Your task to perform on an android device: Show the shopping cart on newegg. Search for logitech g502 on newegg, select the first entry, add it to the cart, then select checkout. Image 0: 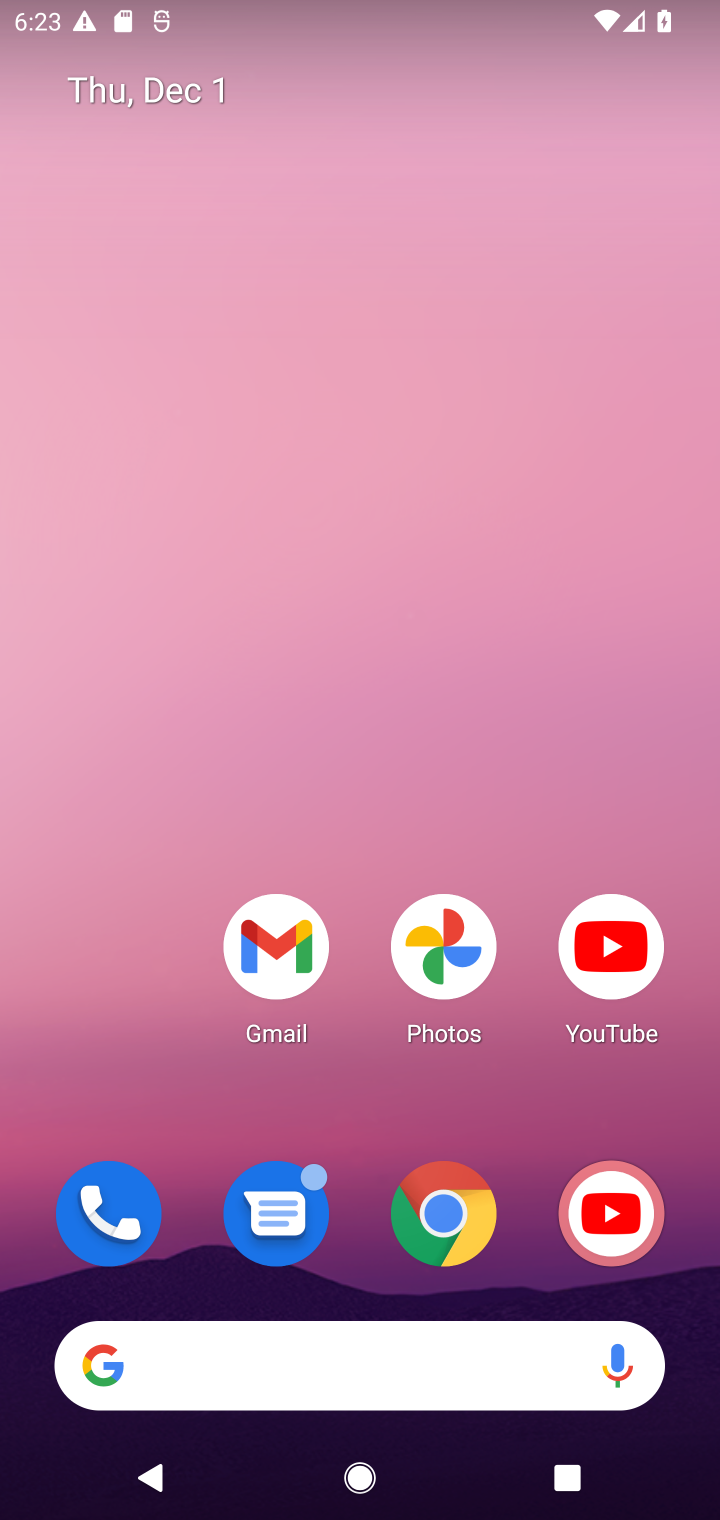
Step 0: click (471, 1346)
Your task to perform on an android device: Show the shopping cart on newegg. Search for logitech g502 on newegg, select the first entry, add it to the cart, then select checkout. Image 1: 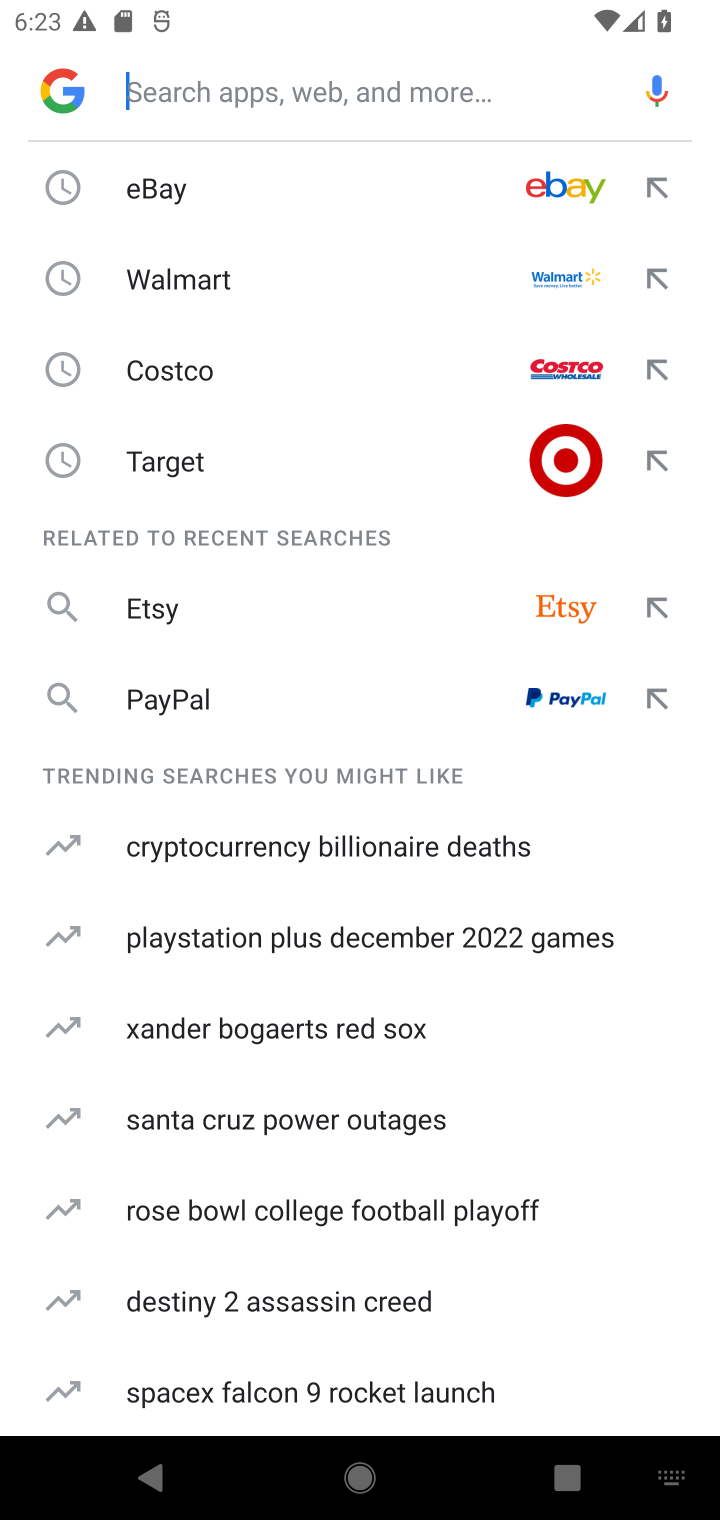
Step 1: type "newegg.com"
Your task to perform on an android device: Show the shopping cart on newegg. Search for logitech g502 on newegg, select the first entry, add it to the cart, then select checkout. Image 2: 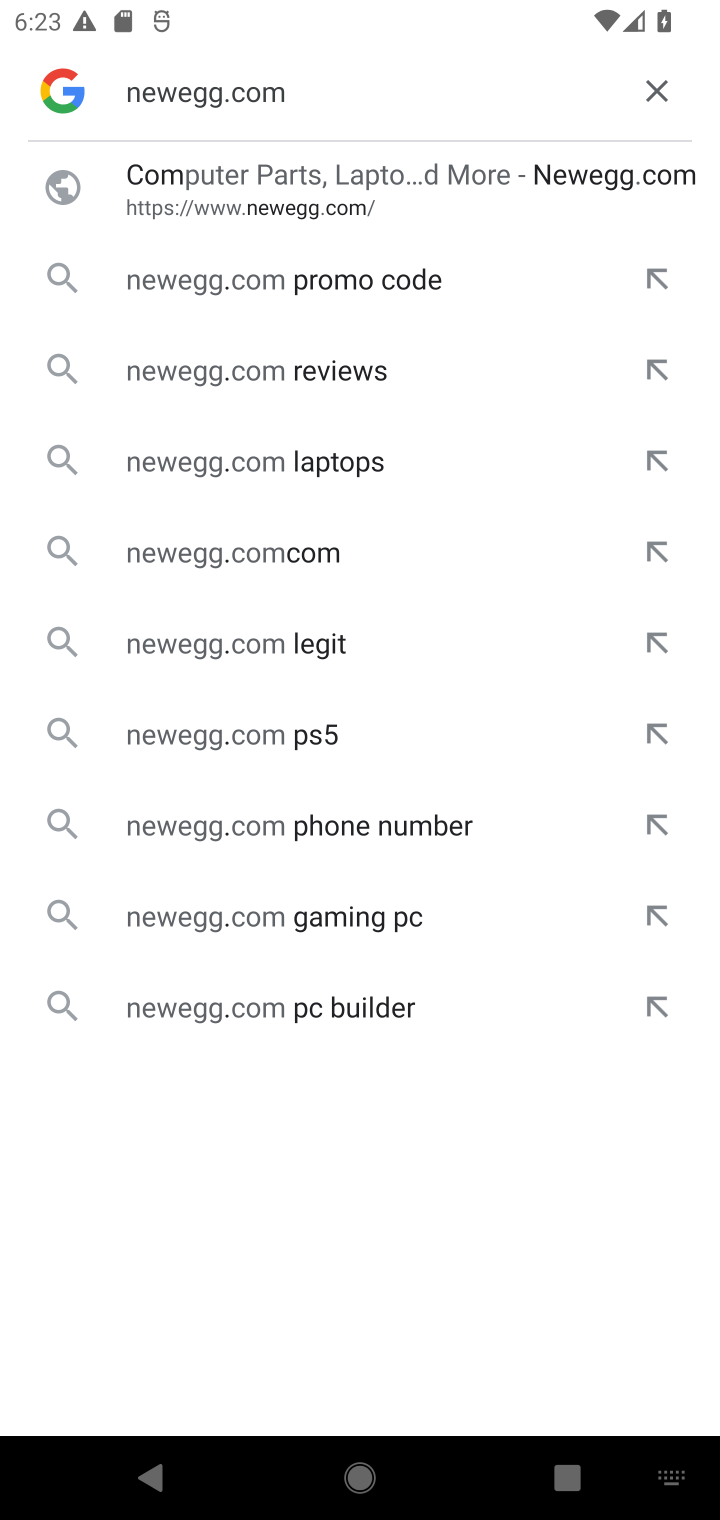
Step 2: click (282, 164)
Your task to perform on an android device: Show the shopping cart on newegg. Search for logitech g502 on newegg, select the first entry, add it to the cart, then select checkout. Image 3: 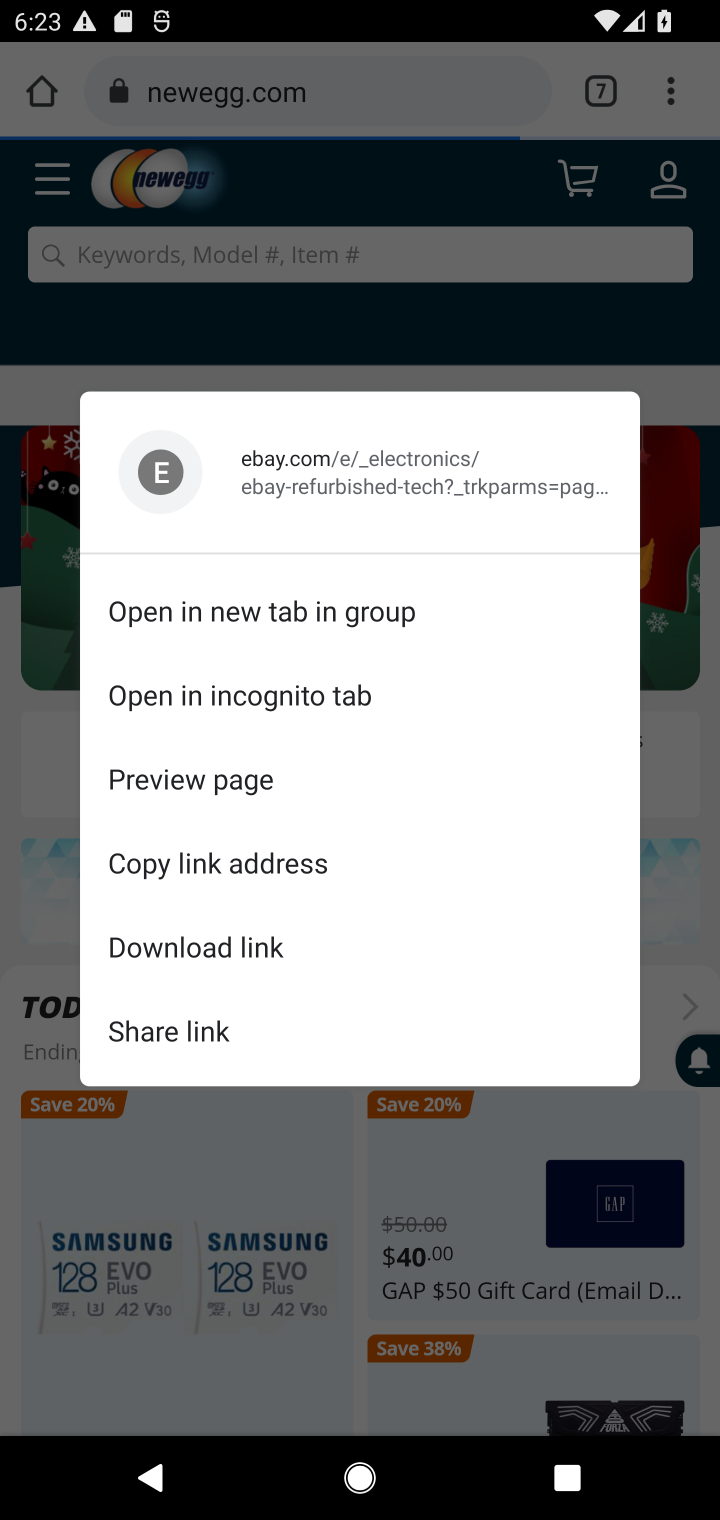
Step 3: click (237, 317)
Your task to perform on an android device: Show the shopping cart on newegg. Search for logitech g502 on newegg, select the first entry, add it to the cart, then select checkout. Image 4: 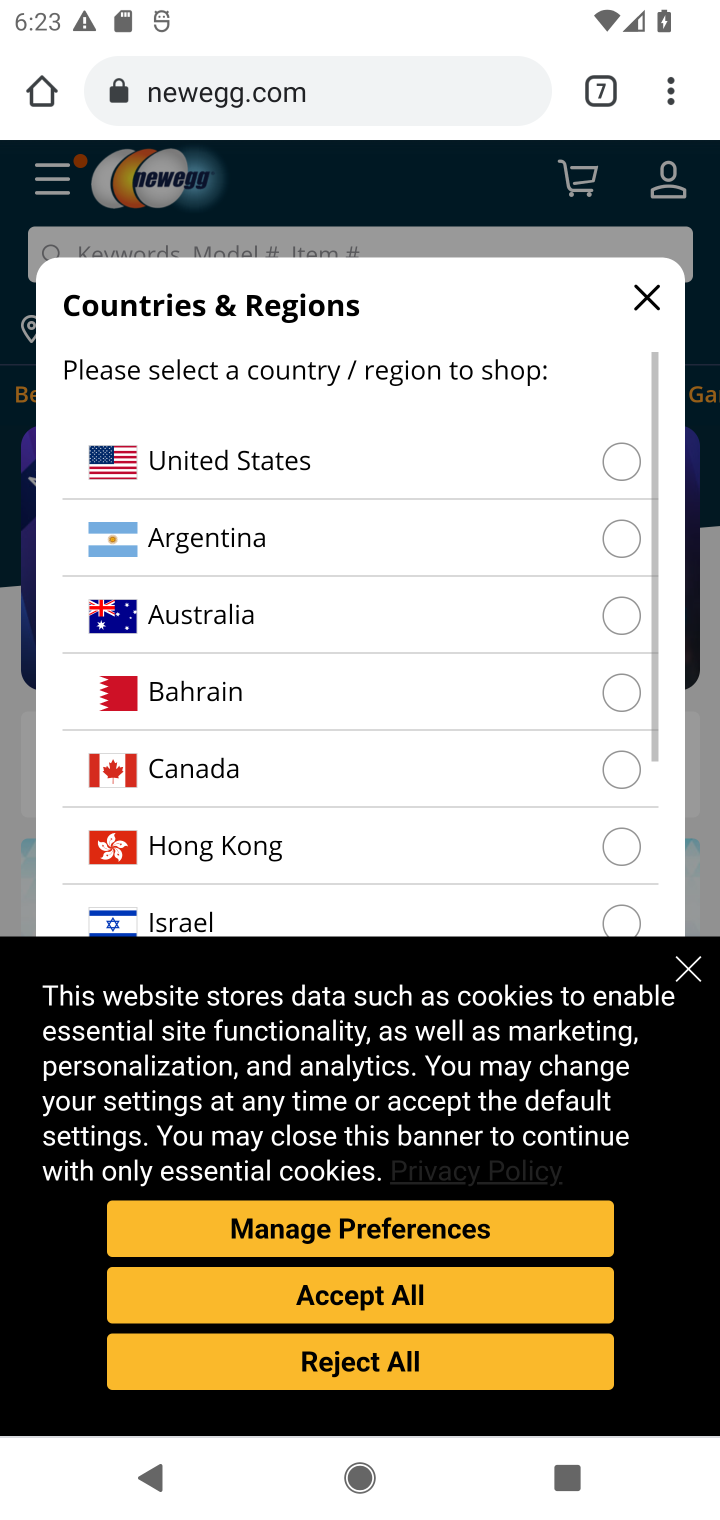
Step 4: click (322, 466)
Your task to perform on an android device: Show the shopping cart on newegg. Search for logitech g502 on newegg, select the first entry, add it to the cart, then select checkout. Image 5: 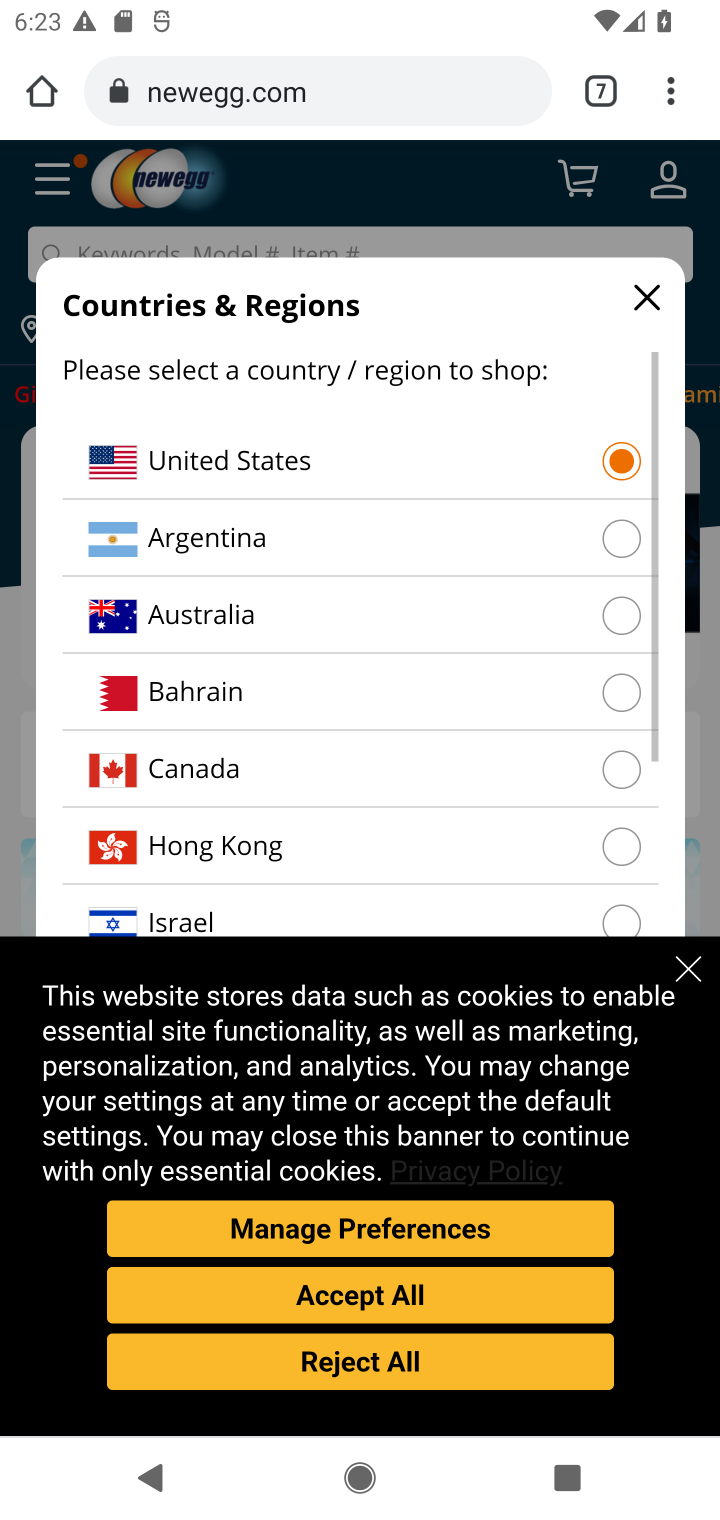
Step 5: click (643, 283)
Your task to perform on an android device: Show the shopping cart on newegg. Search for logitech g502 on newegg, select the first entry, add it to the cart, then select checkout. Image 6: 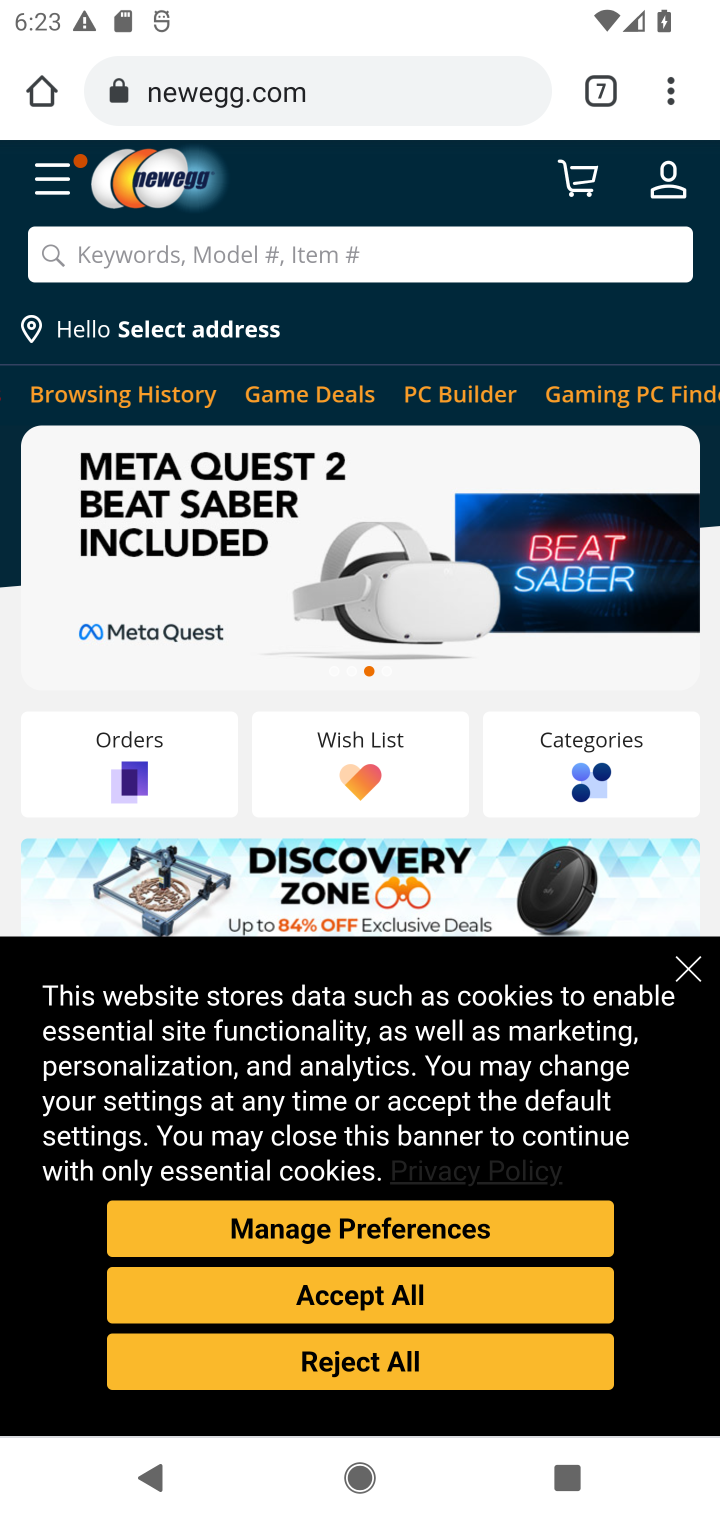
Step 6: click (404, 246)
Your task to perform on an android device: Show the shopping cart on newegg. Search for logitech g502 on newegg, select the first entry, add it to the cart, then select checkout. Image 7: 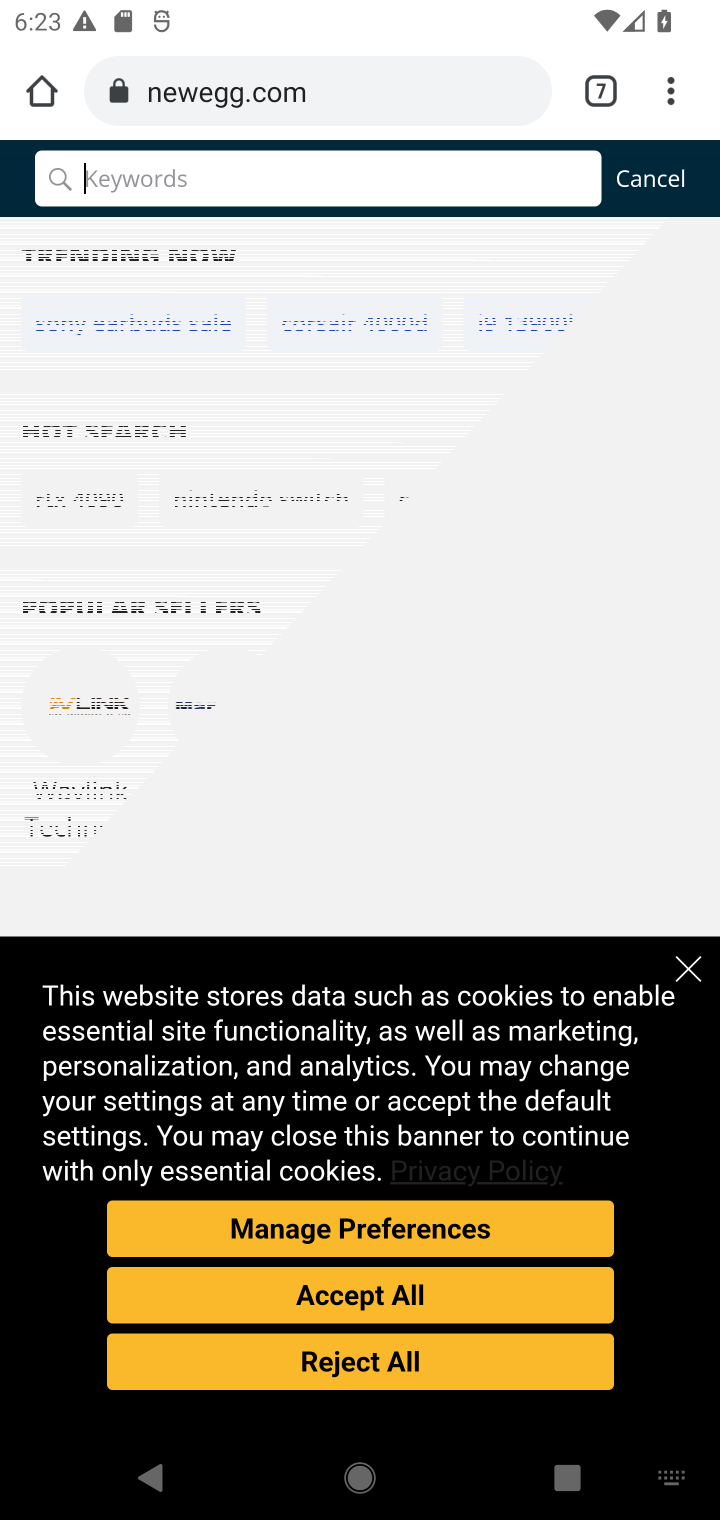
Step 7: type "logitech g502"
Your task to perform on an android device: Show the shopping cart on newegg. Search for logitech g502 on newegg, select the first entry, add it to the cart, then select checkout. Image 8: 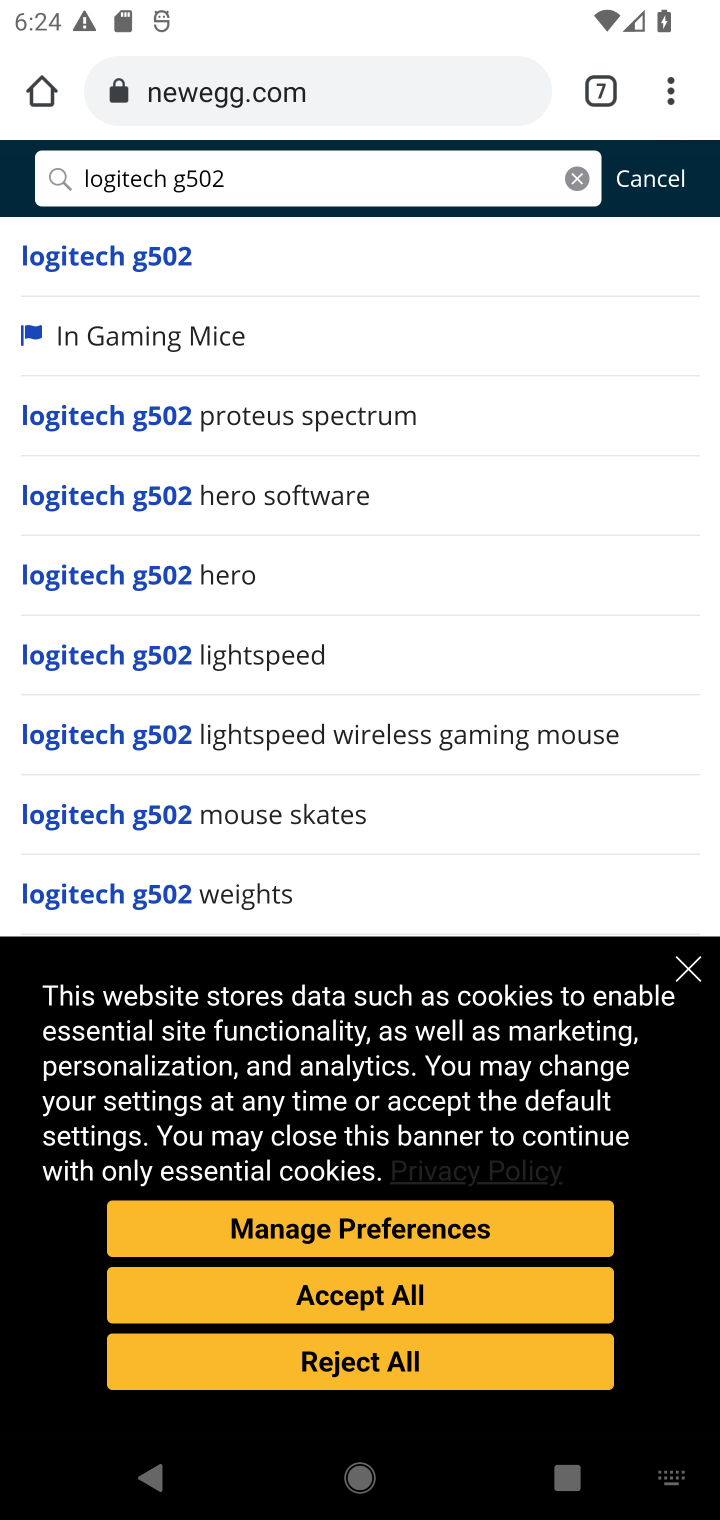
Step 8: click (104, 278)
Your task to perform on an android device: Show the shopping cart on newegg. Search for logitech g502 on newegg, select the first entry, add it to the cart, then select checkout. Image 9: 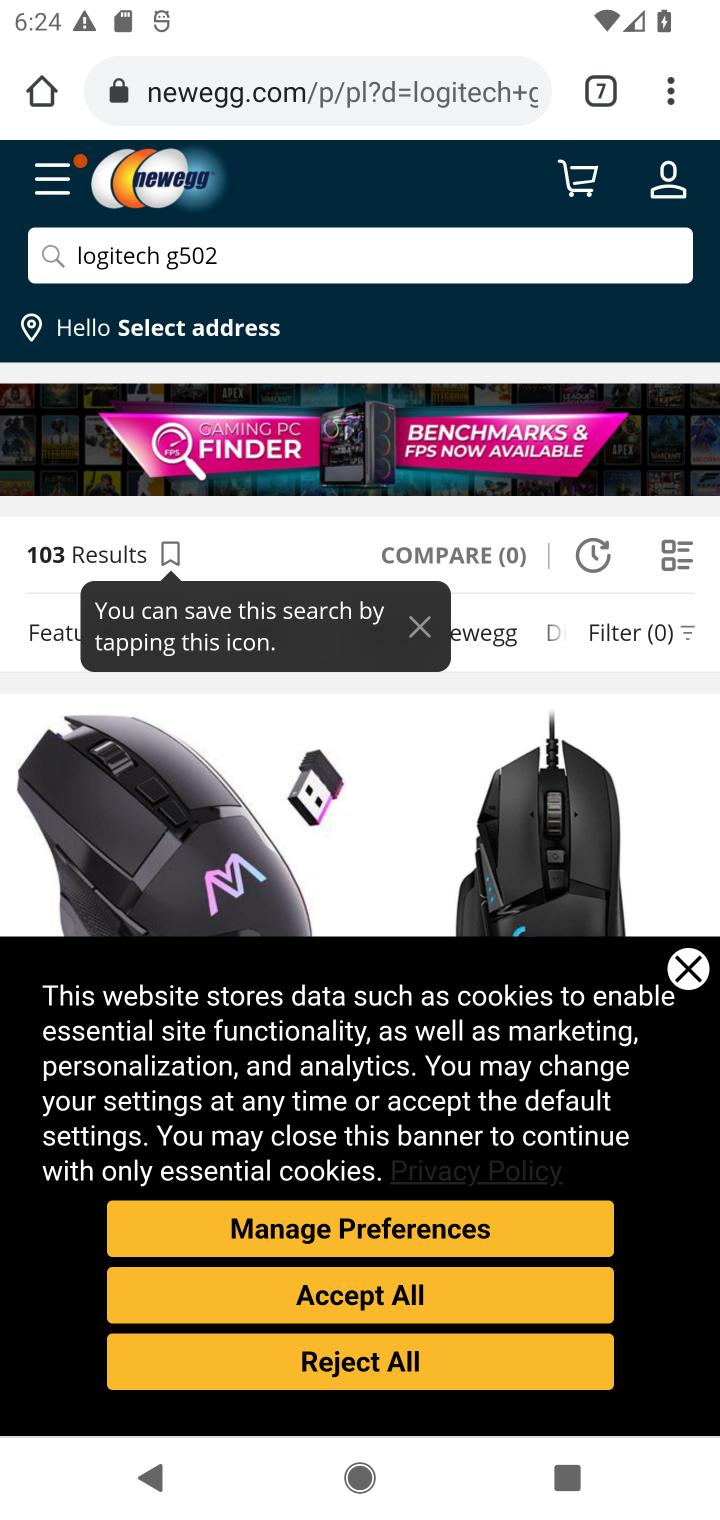
Step 9: click (275, 1293)
Your task to perform on an android device: Show the shopping cart on newegg. Search for logitech g502 on newegg, select the first entry, add it to the cart, then select checkout. Image 10: 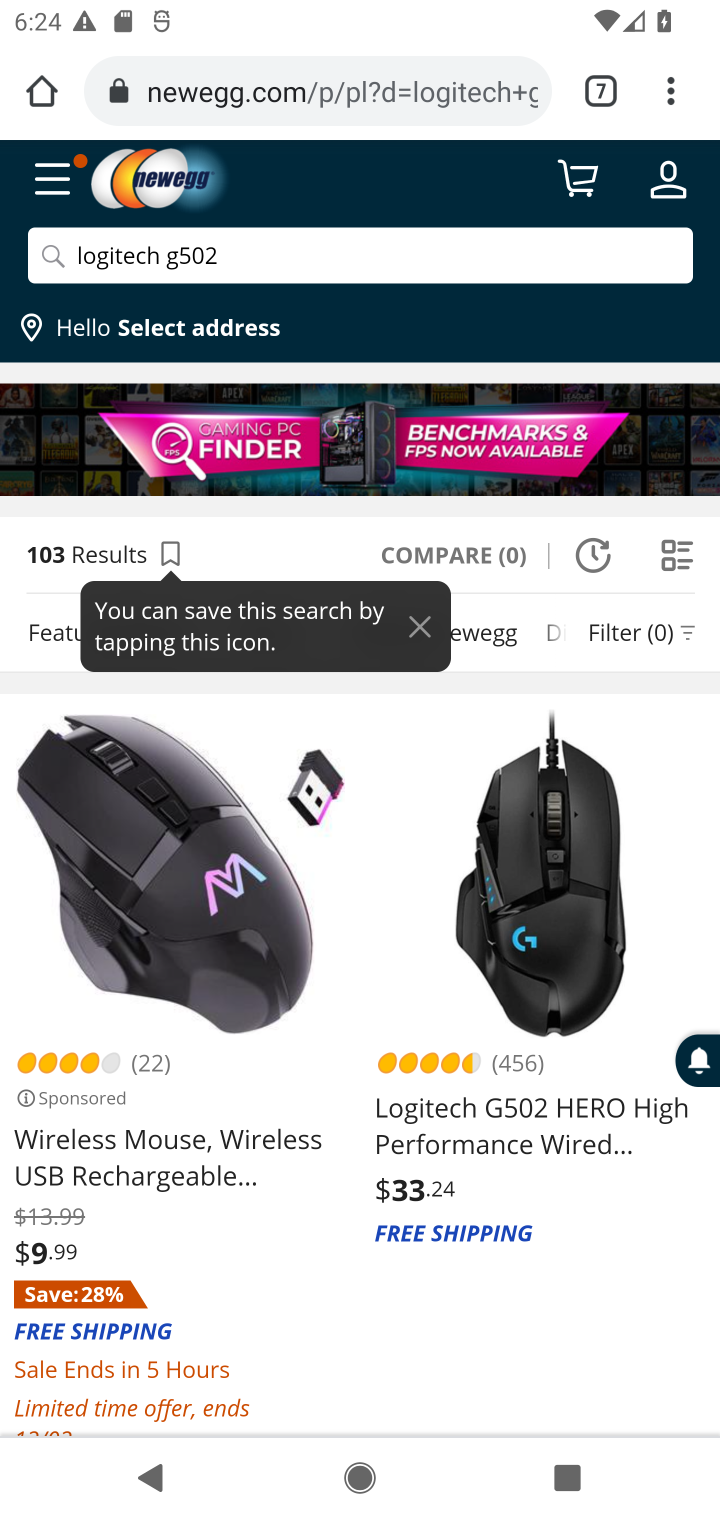
Step 10: click (62, 1036)
Your task to perform on an android device: Show the shopping cart on newegg. Search for logitech g502 on newegg, select the first entry, add it to the cart, then select checkout. Image 11: 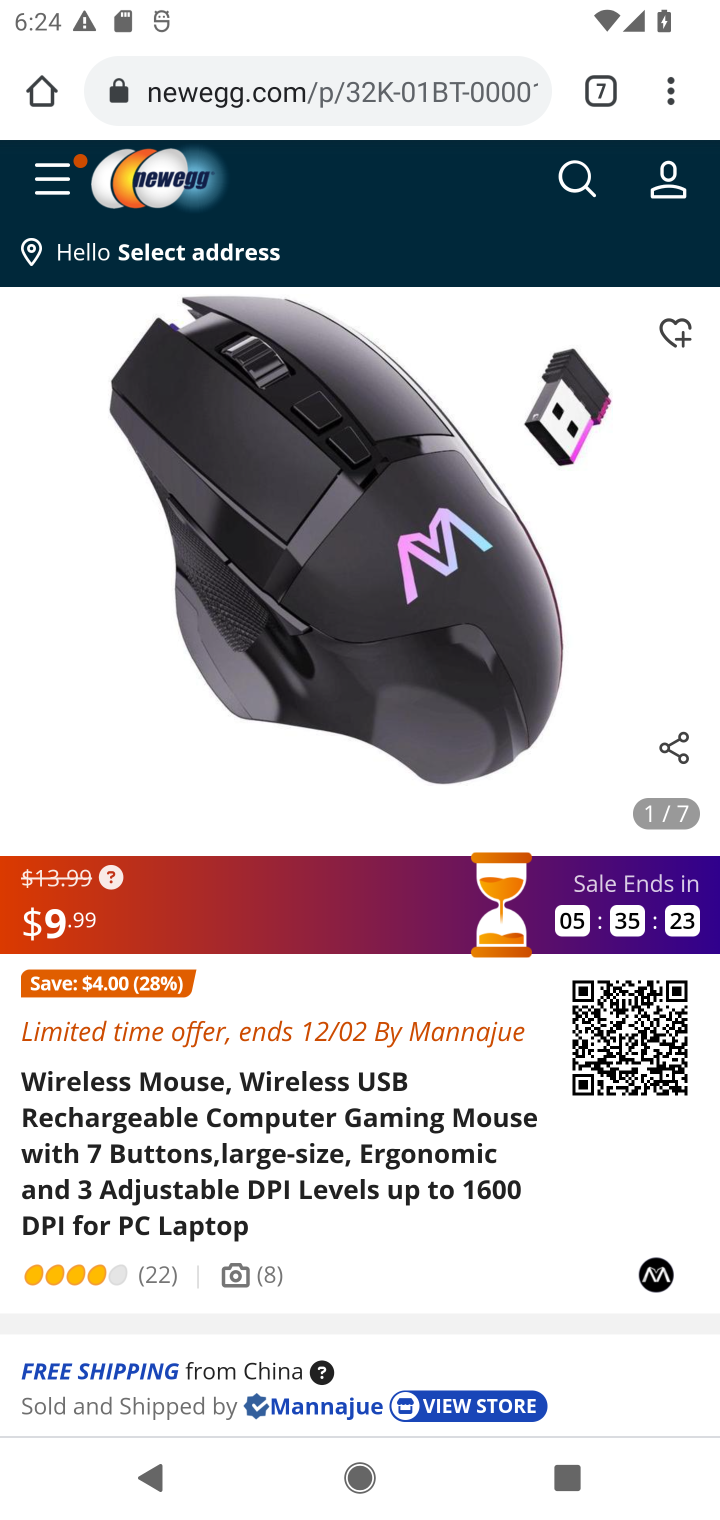
Step 11: click (325, 1392)
Your task to perform on an android device: Show the shopping cart on newegg. Search for logitech g502 on newegg, select the first entry, add it to the cart, then select checkout. Image 12: 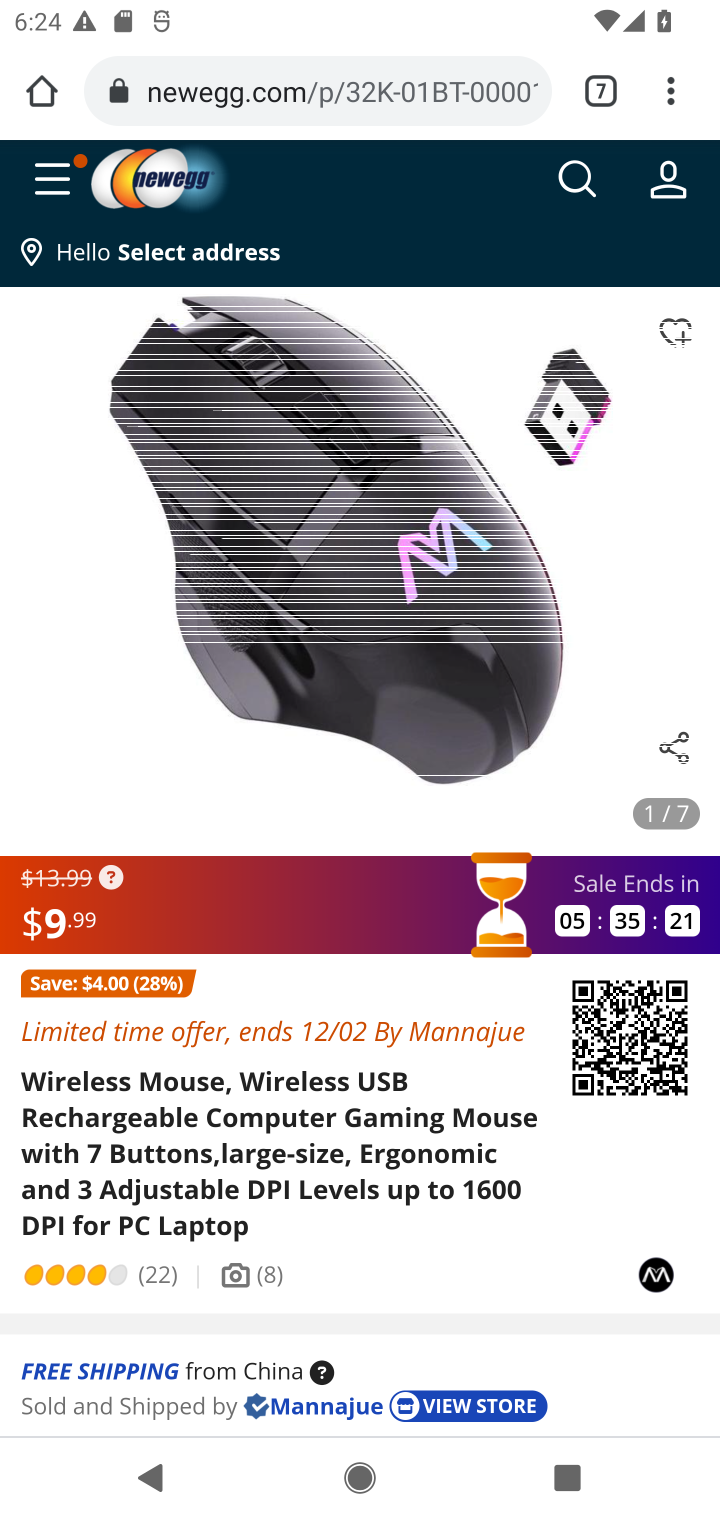
Step 12: task complete